Your task to perform on an android device: move a message to another label in the gmail app Image 0: 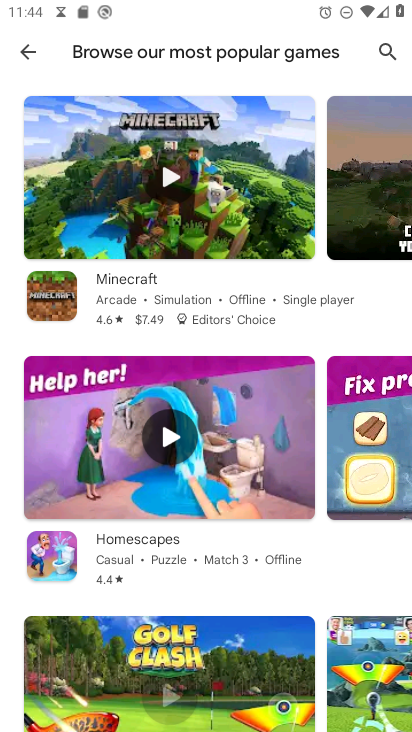
Step 0: press home button
Your task to perform on an android device: move a message to another label in the gmail app Image 1: 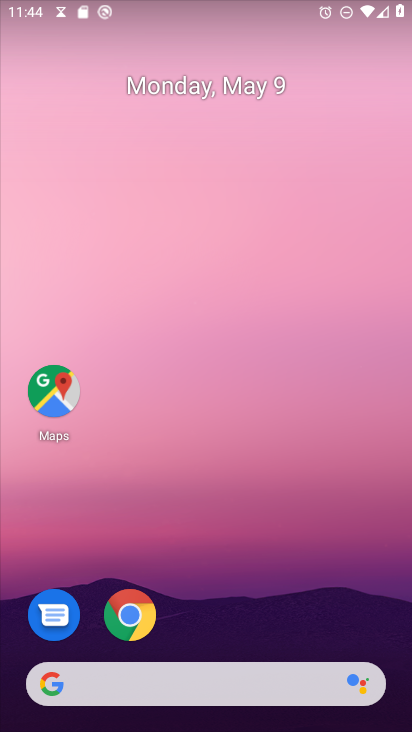
Step 1: drag from (204, 728) to (200, 267)
Your task to perform on an android device: move a message to another label in the gmail app Image 2: 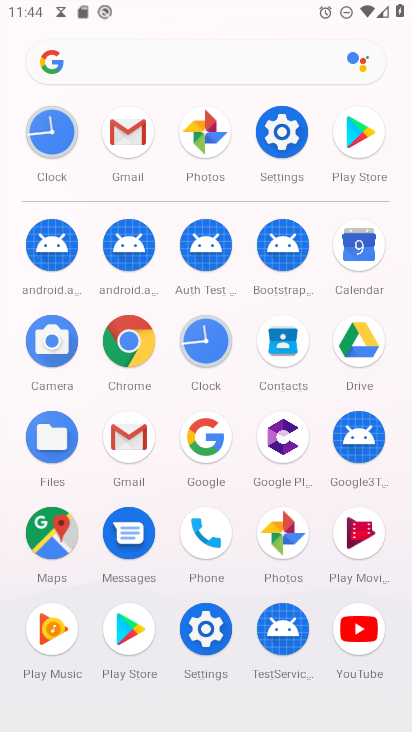
Step 2: click (133, 440)
Your task to perform on an android device: move a message to another label in the gmail app Image 3: 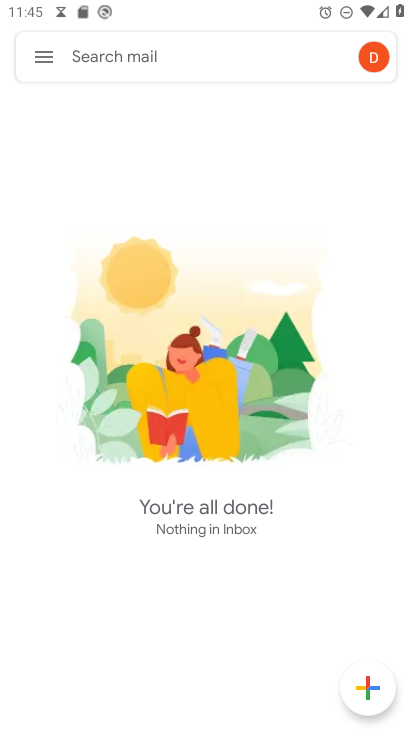
Step 3: task complete